Your task to perform on an android device: Go to eBay Image 0: 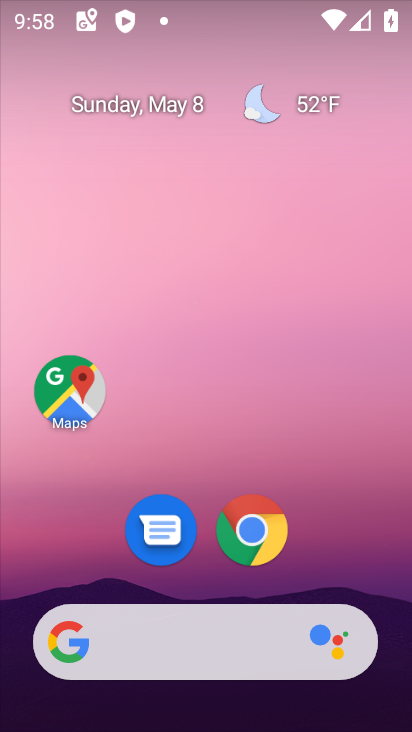
Step 0: drag from (352, 555) to (350, 177)
Your task to perform on an android device: Go to eBay Image 1: 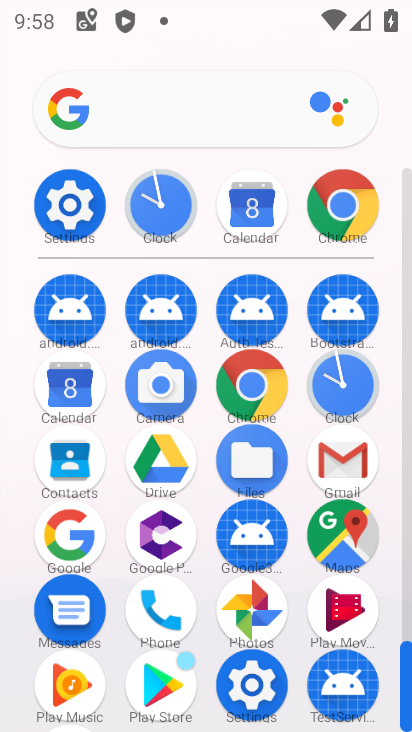
Step 1: click (270, 389)
Your task to perform on an android device: Go to eBay Image 2: 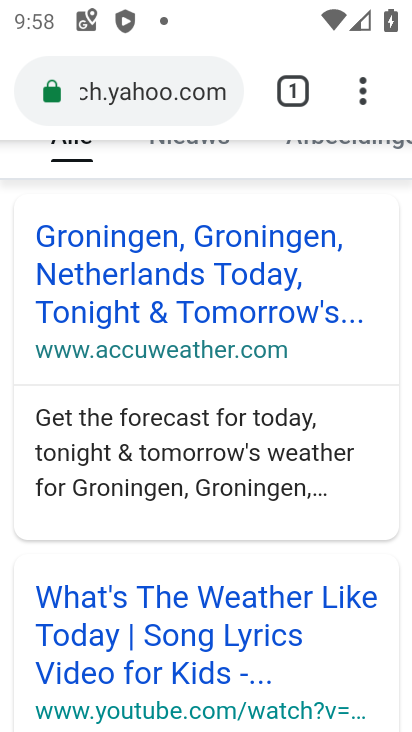
Step 2: click (157, 90)
Your task to perform on an android device: Go to eBay Image 3: 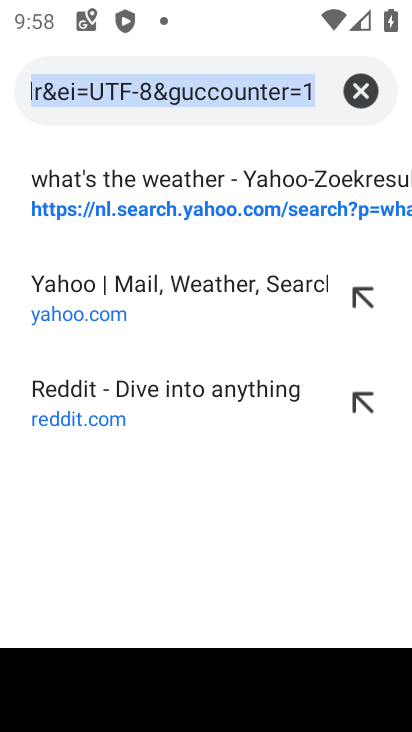
Step 3: click (363, 95)
Your task to perform on an android device: Go to eBay Image 4: 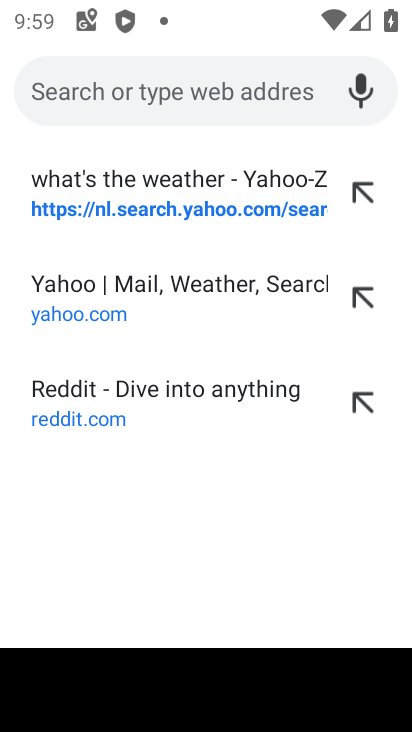
Step 4: type "ebay"
Your task to perform on an android device: Go to eBay Image 5: 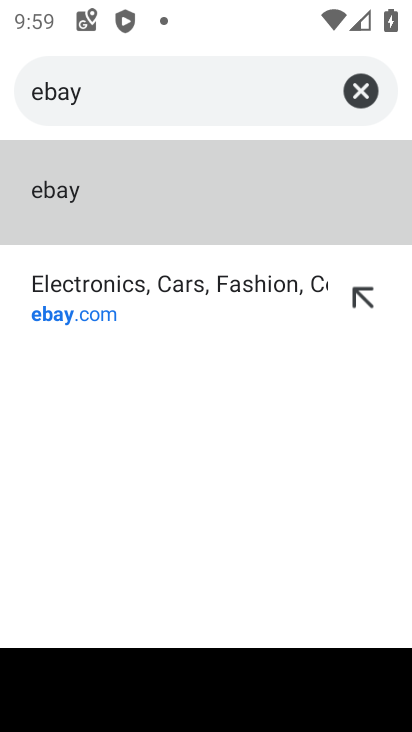
Step 5: click (46, 200)
Your task to perform on an android device: Go to eBay Image 6: 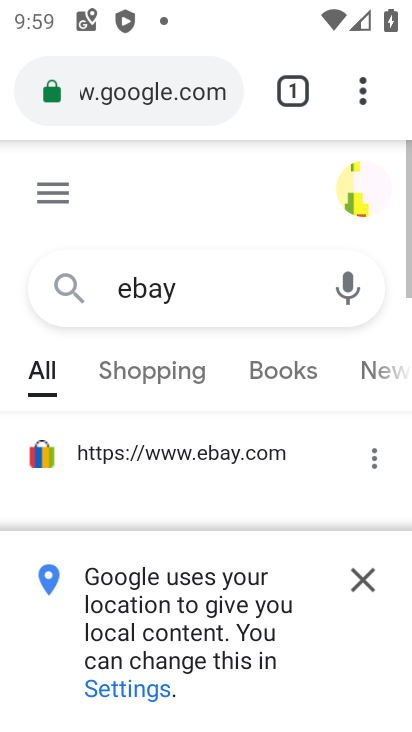
Step 6: click (357, 585)
Your task to perform on an android device: Go to eBay Image 7: 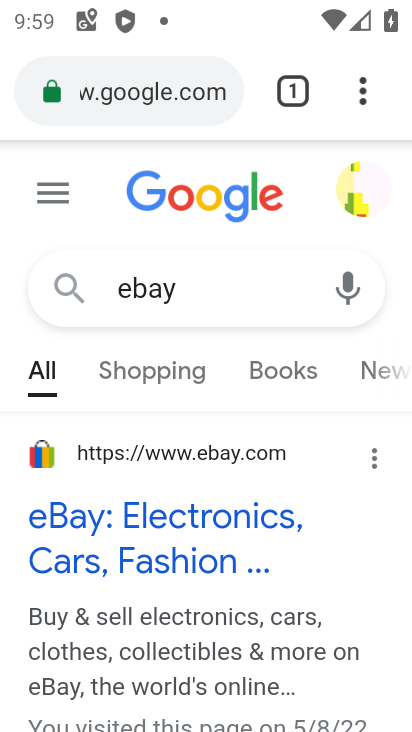
Step 7: drag from (326, 663) to (323, 427)
Your task to perform on an android device: Go to eBay Image 8: 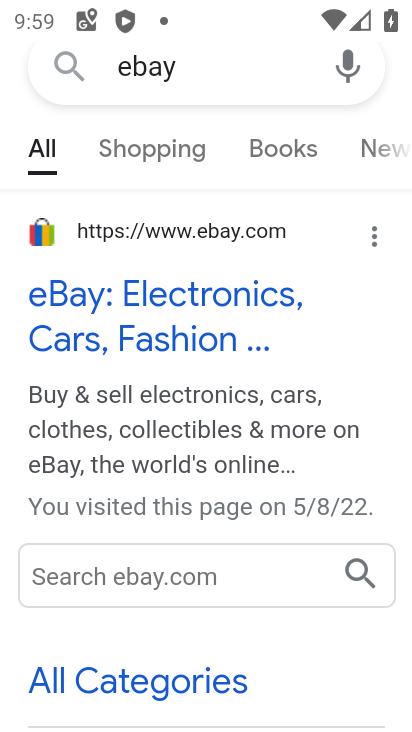
Step 8: click (148, 332)
Your task to perform on an android device: Go to eBay Image 9: 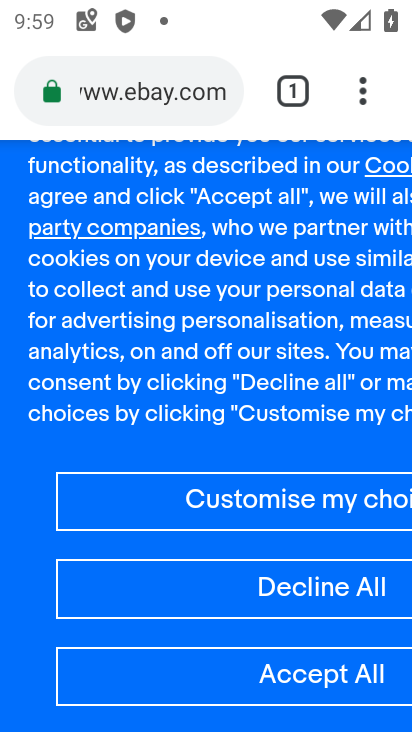
Step 9: drag from (305, 579) to (261, 275)
Your task to perform on an android device: Go to eBay Image 10: 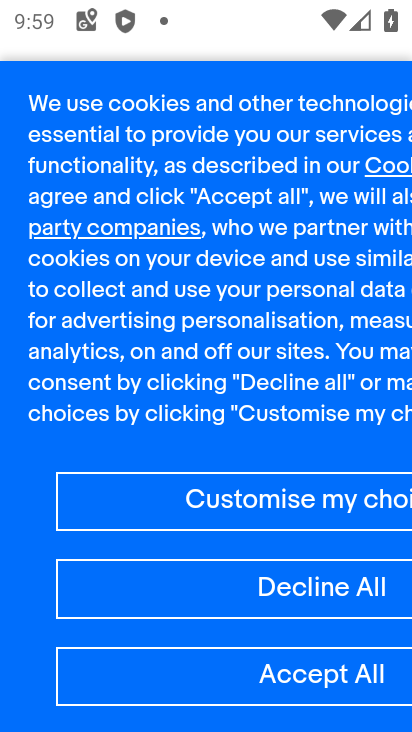
Step 10: click (301, 680)
Your task to perform on an android device: Go to eBay Image 11: 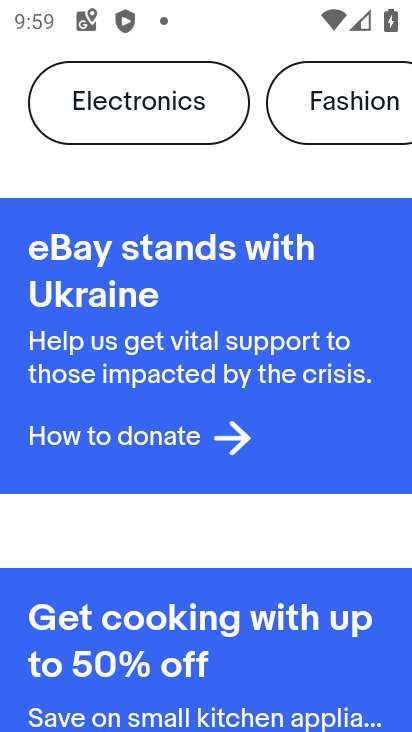
Step 11: task complete